Your task to perform on an android device: Open maps Image 0: 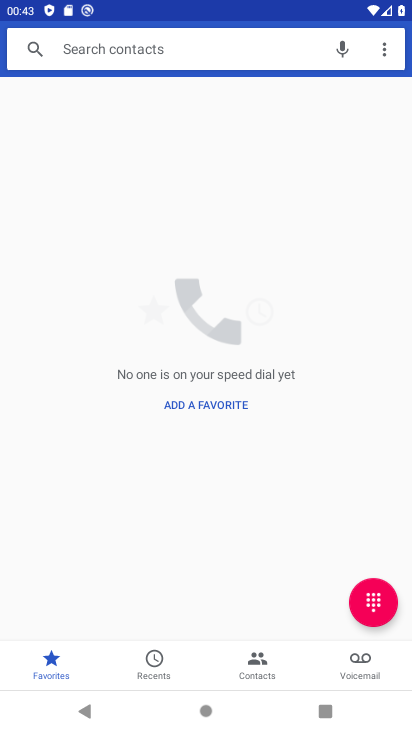
Step 0: press back button
Your task to perform on an android device: Open maps Image 1: 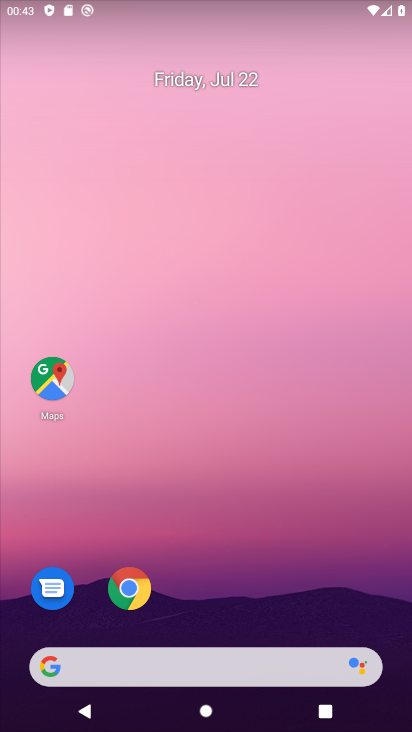
Step 1: click (46, 383)
Your task to perform on an android device: Open maps Image 2: 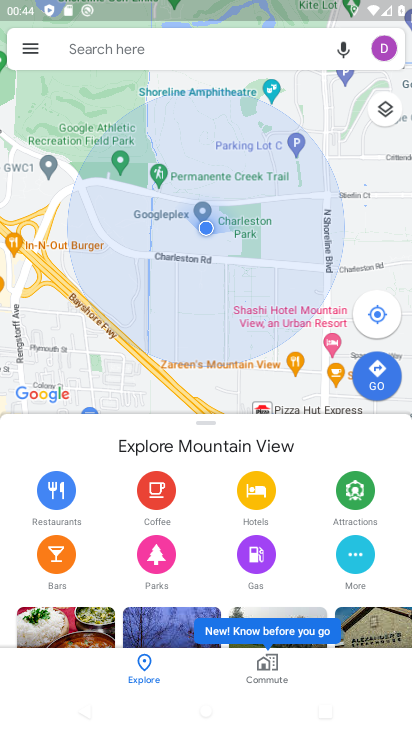
Step 2: task complete